Your task to perform on an android device: find photos in the google photos app Image 0: 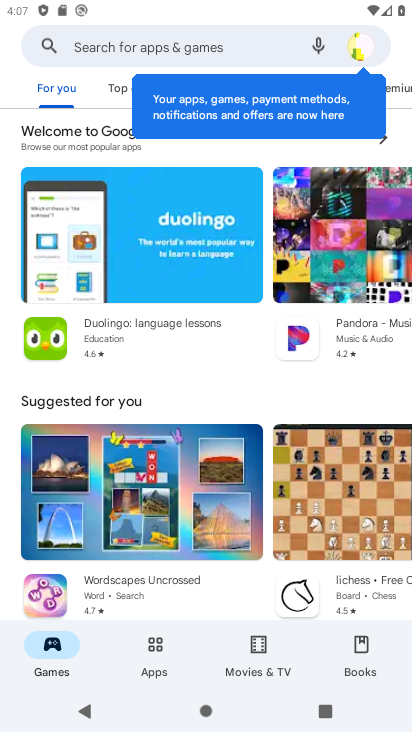
Step 0: press home button
Your task to perform on an android device: find photos in the google photos app Image 1: 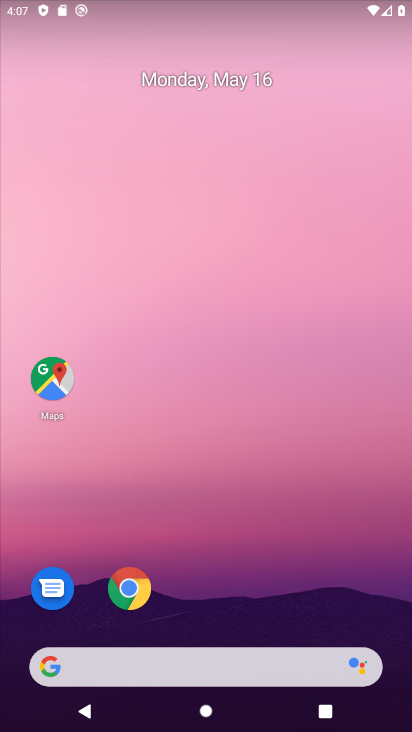
Step 1: drag from (202, 654) to (305, 118)
Your task to perform on an android device: find photos in the google photos app Image 2: 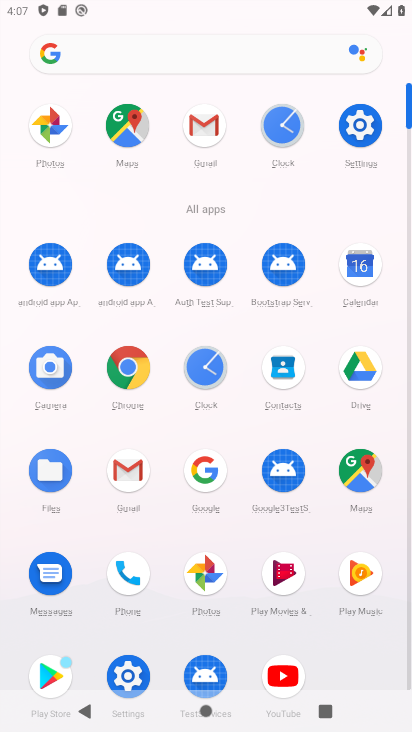
Step 2: click (207, 574)
Your task to perform on an android device: find photos in the google photos app Image 3: 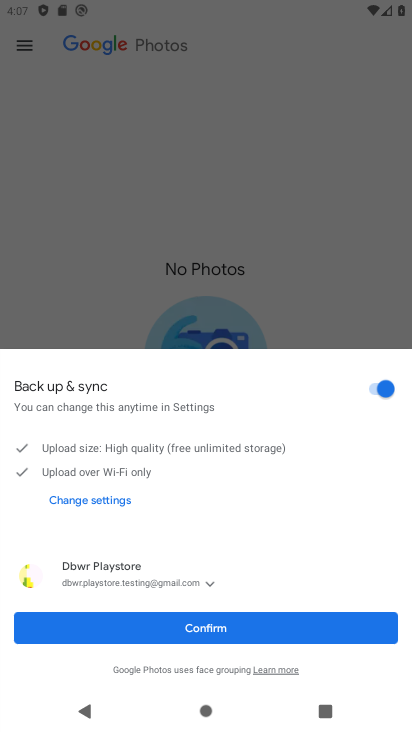
Step 3: click (224, 631)
Your task to perform on an android device: find photos in the google photos app Image 4: 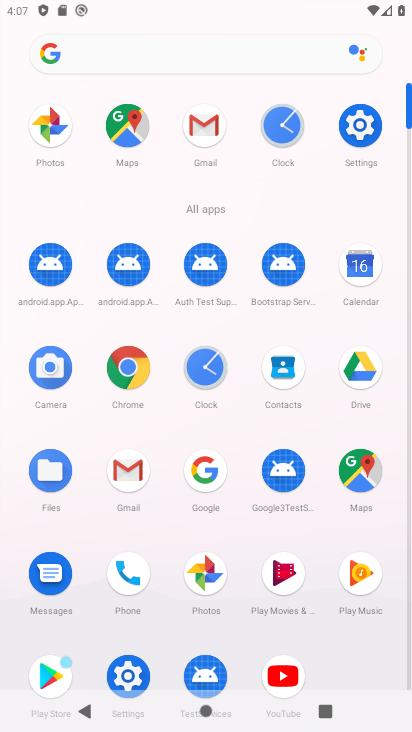
Step 4: click (205, 586)
Your task to perform on an android device: find photos in the google photos app Image 5: 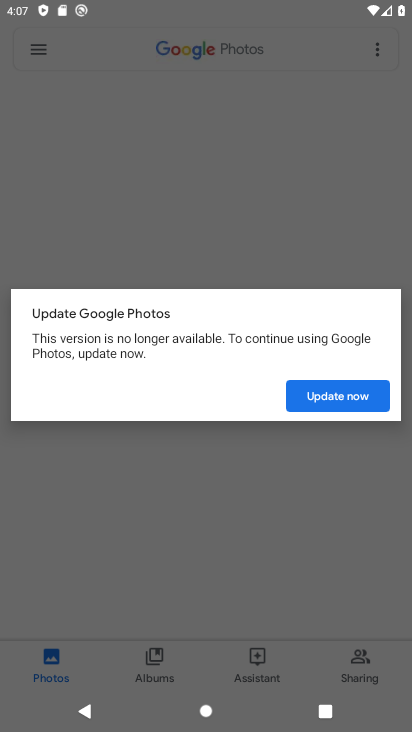
Step 5: click (339, 397)
Your task to perform on an android device: find photos in the google photos app Image 6: 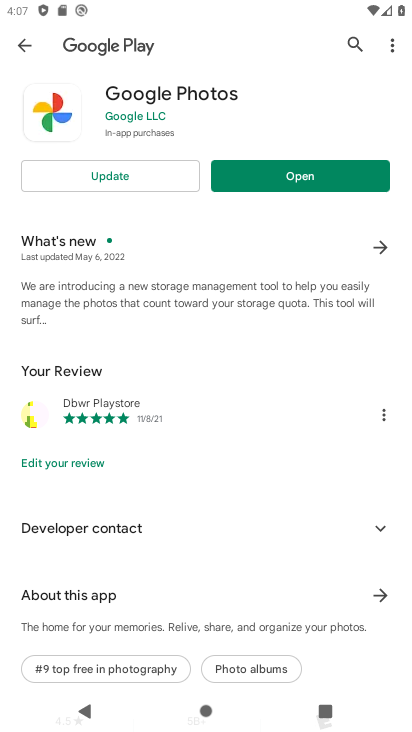
Step 6: click (149, 179)
Your task to perform on an android device: find photos in the google photos app Image 7: 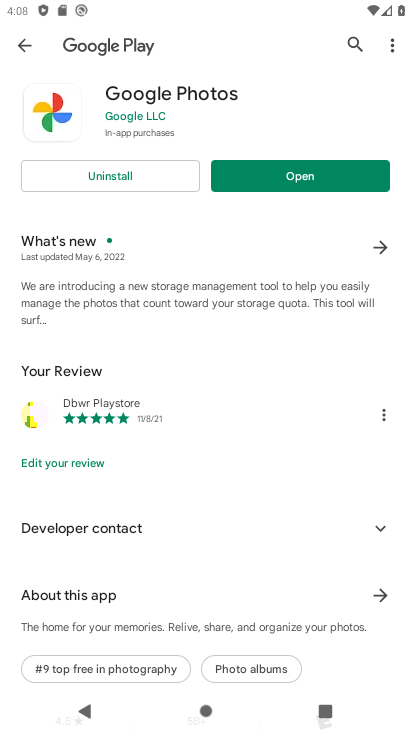
Step 7: click (339, 196)
Your task to perform on an android device: find photos in the google photos app Image 8: 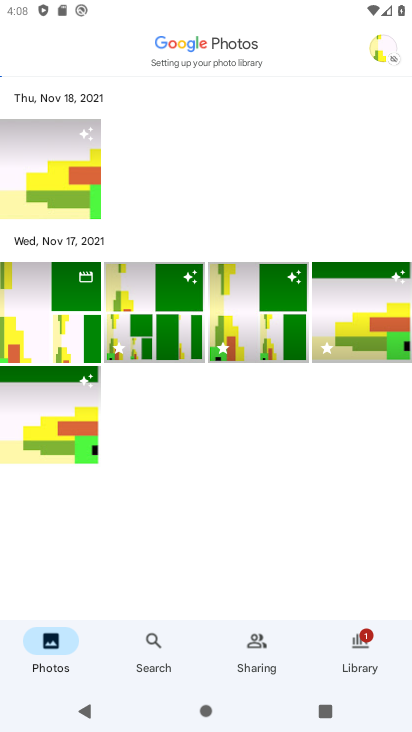
Step 8: task complete